Your task to perform on an android device: set an alarm Image 0: 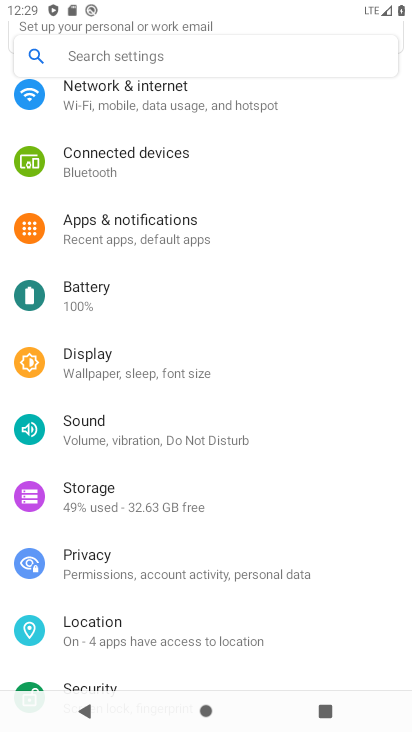
Step 0: press home button
Your task to perform on an android device: set an alarm Image 1: 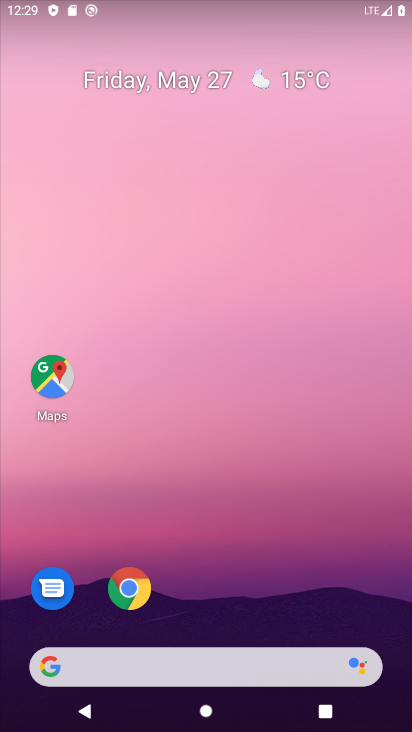
Step 1: drag from (357, 600) to (336, 61)
Your task to perform on an android device: set an alarm Image 2: 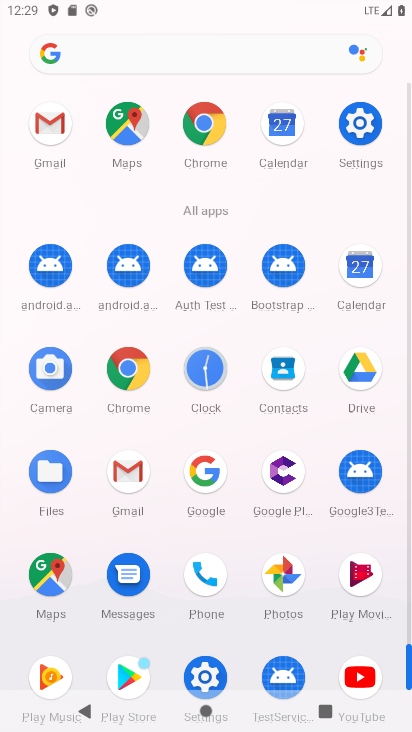
Step 2: click (208, 374)
Your task to perform on an android device: set an alarm Image 3: 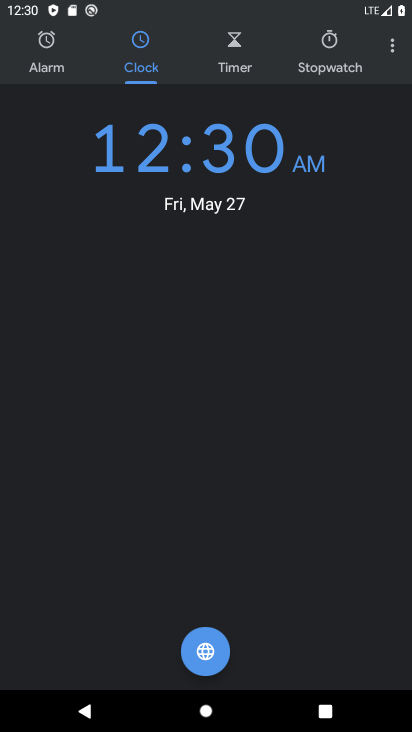
Step 3: click (45, 37)
Your task to perform on an android device: set an alarm Image 4: 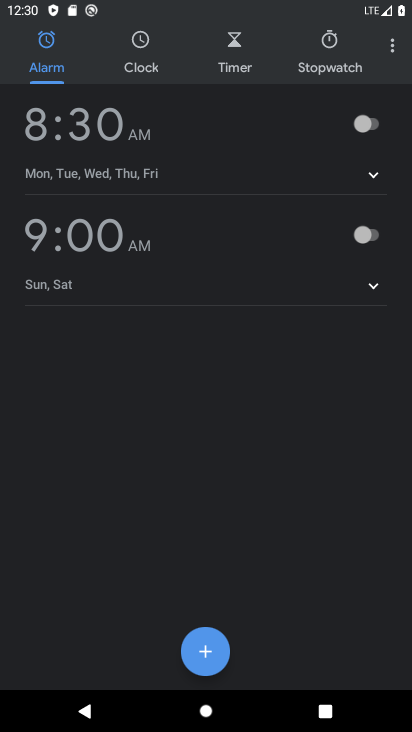
Step 4: click (68, 108)
Your task to perform on an android device: set an alarm Image 5: 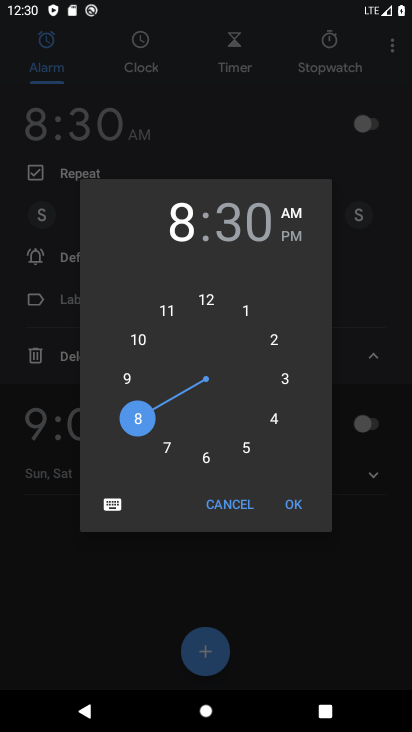
Step 5: click (210, 453)
Your task to perform on an android device: set an alarm Image 6: 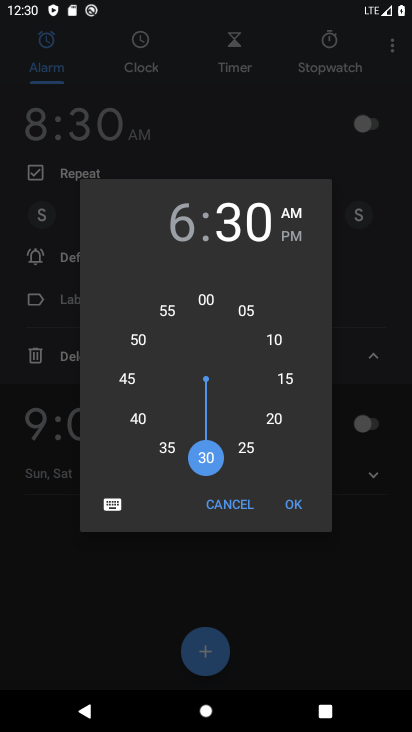
Step 6: click (283, 373)
Your task to perform on an android device: set an alarm Image 7: 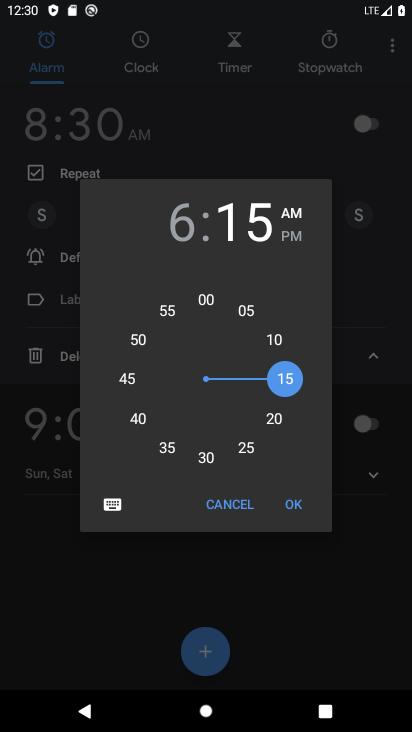
Step 7: click (297, 506)
Your task to perform on an android device: set an alarm Image 8: 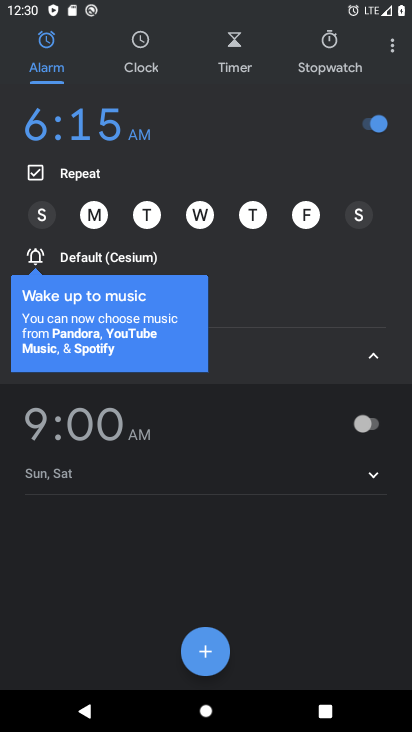
Step 8: click (362, 211)
Your task to perform on an android device: set an alarm Image 9: 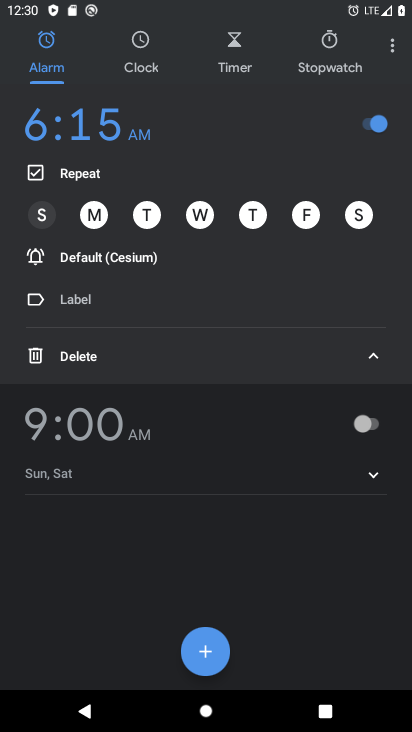
Step 9: click (374, 357)
Your task to perform on an android device: set an alarm Image 10: 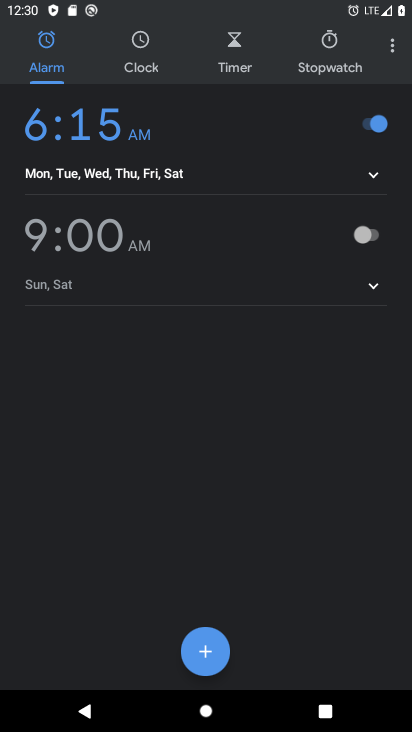
Step 10: task complete